Your task to perform on an android device: change text size in settings app Image 0: 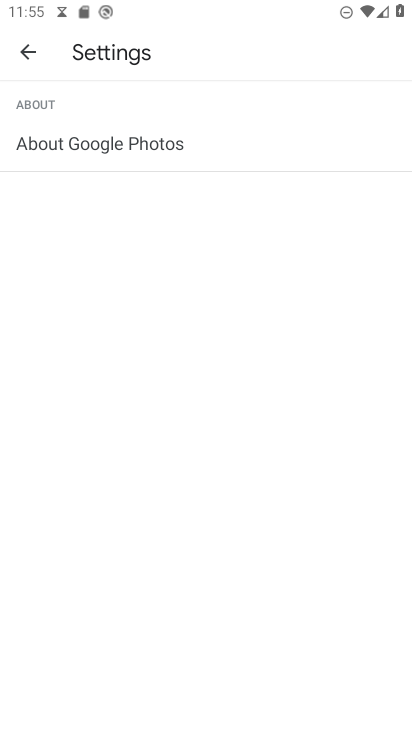
Step 0: press home button
Your task to perform on an android device: change text size in settings app Image 1: 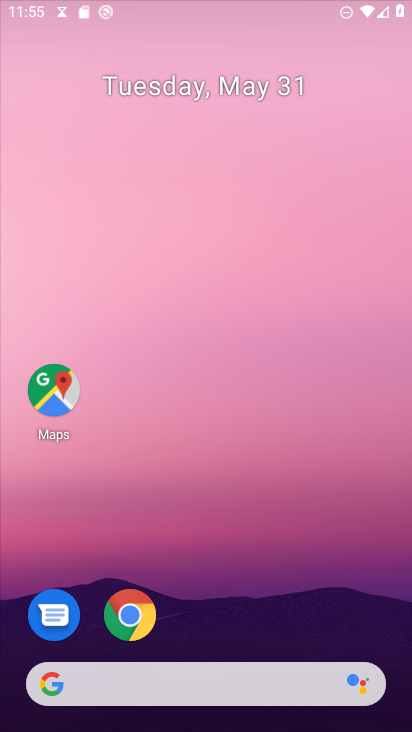
Step 1: drag from (161, 730) to (160, 140)
Your task to perform on an android device: change text size in settings app Image 2: 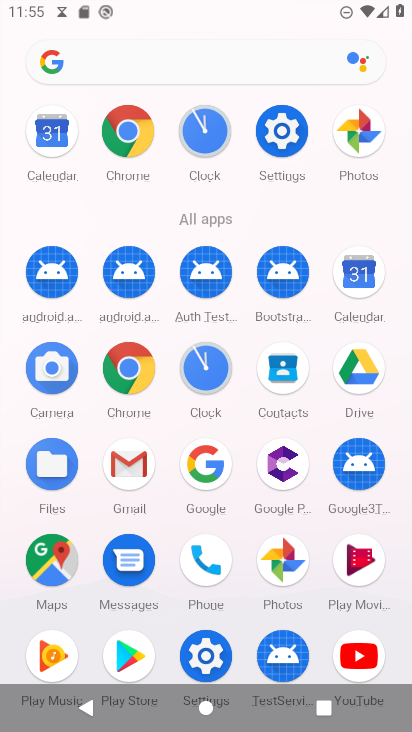
Step 2: click (286, 123)
Your task to perform on an android device: change text size in settings app Image 3: 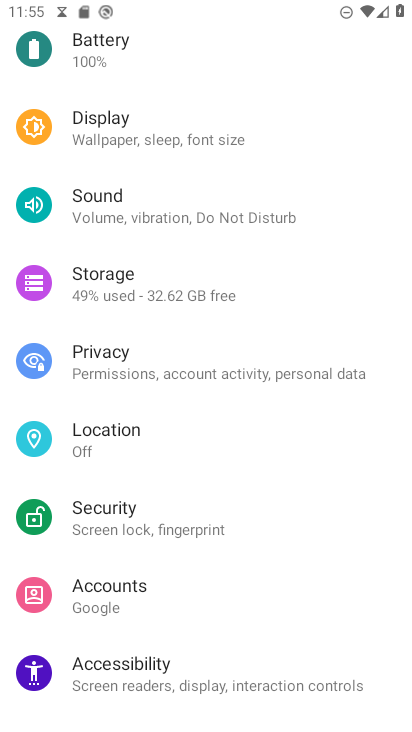
Step 3: drag from (139, 571) to (177, 114)
Your task to perform on an android device: change text size in settings app Image 4: 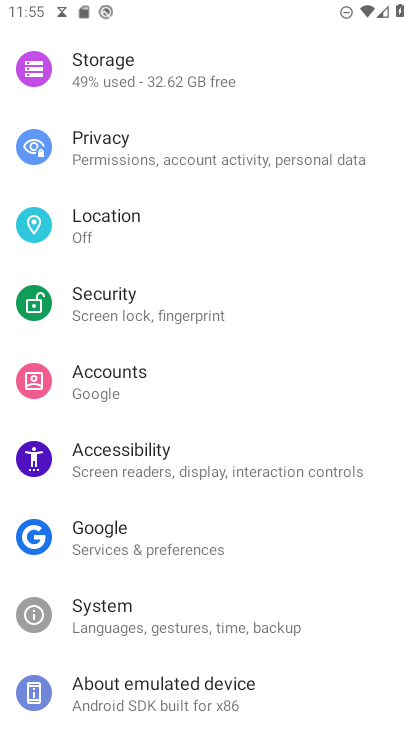
Step 4: click (120, 596)
Your task to perform on an android device: change text size in settings app Image 5: 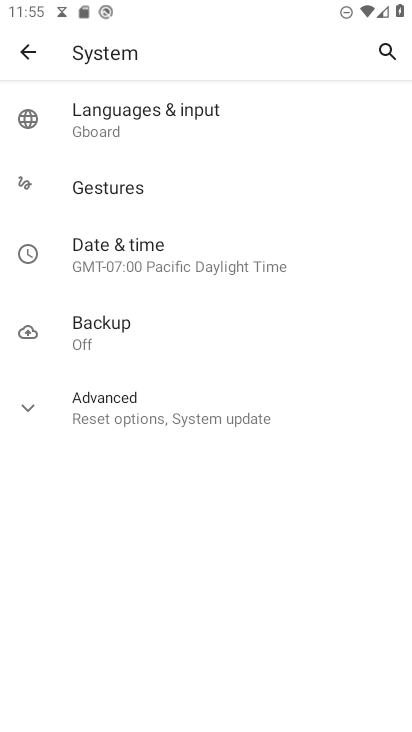
Step 5: press back button
Your task to perform on an android device: change text size in settings app Image 6: 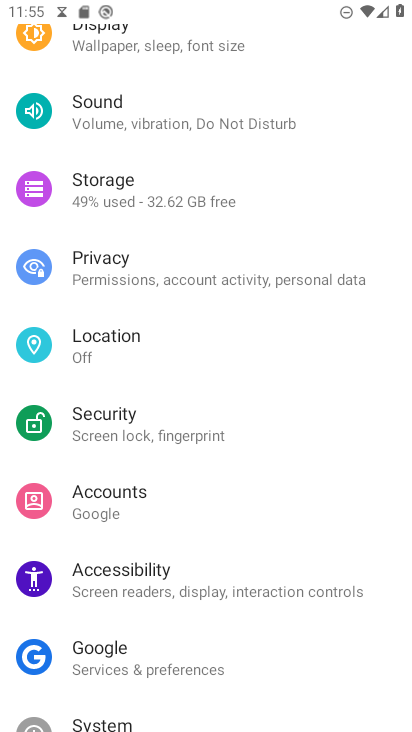
Step 6: click (195, 587)
Your task to perform on an android device: change text size in settings app Image 7: 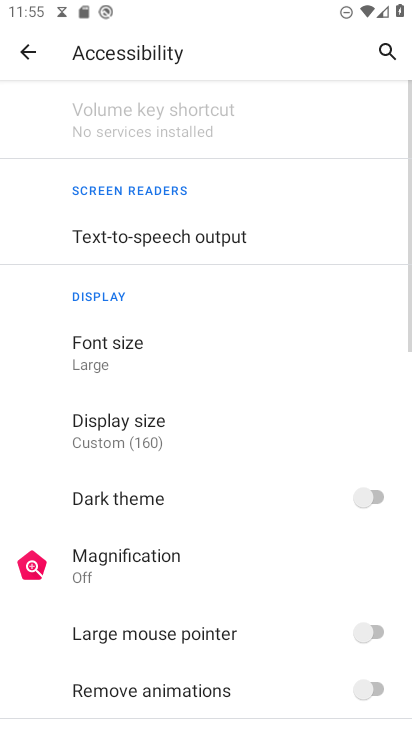
Step 7: click (190, 354)
Your task to perform on an android device: change text size in settings app Image 8: 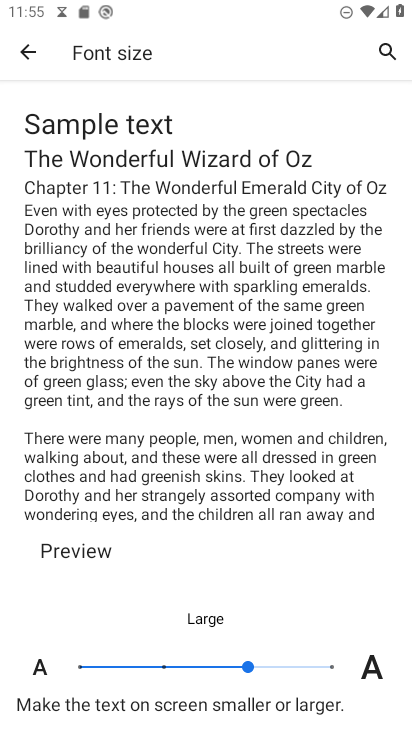
Step 8: click (165, 669)
Your task to perform on an android device: change text size in settings app Image 9: 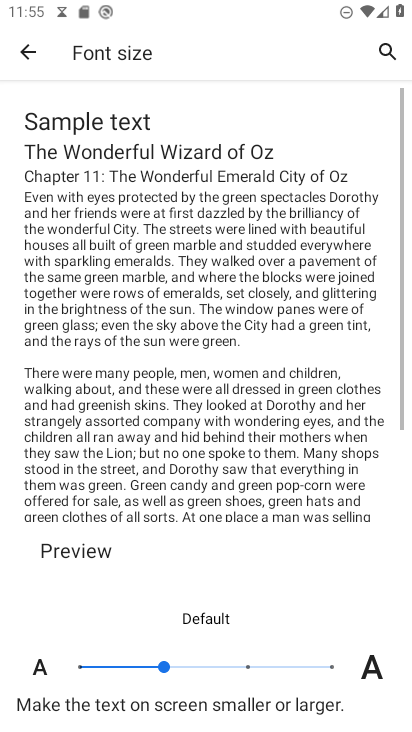
Step 9: task complete